Your task to perform on an android device: open a bookmark in the chrome app Image 0: 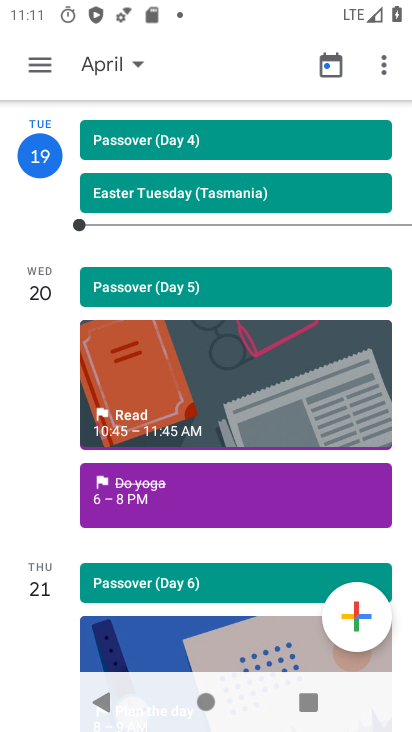
Step 0: press home button
Your task to perform on an android device: open a bookmark in the chrome app Image 1: 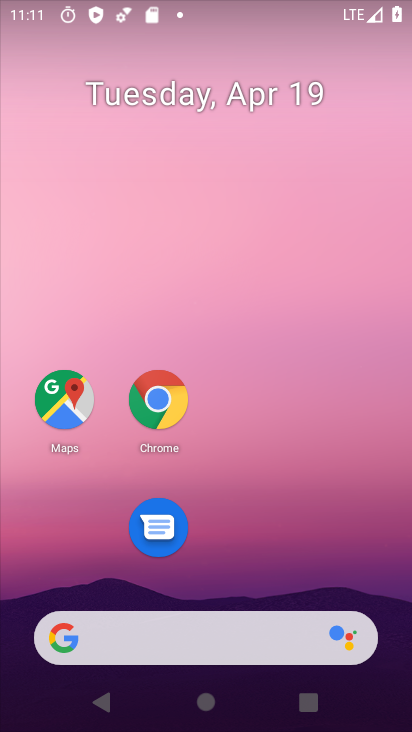
Step 1: drag from (266, 665) to (205, 63)
Your task to perform on an android device: open a bookmark in the chrome app Image 2: 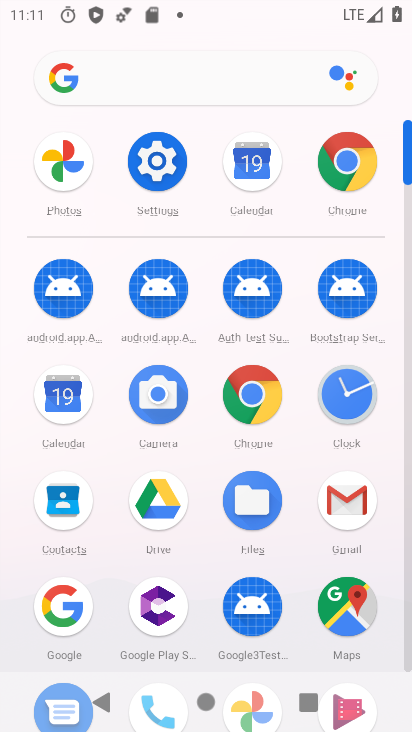
Step 2: click (243, 393)
Your task to perform on an android device: open a bookmark in the chrome app Image 3: 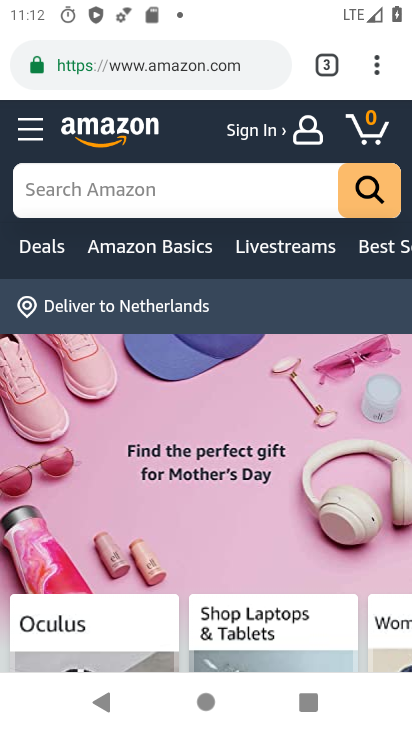
Step 3: click (381, 69)
Your task to perform on an android device: open a bookmark in the chrome app Image 4: 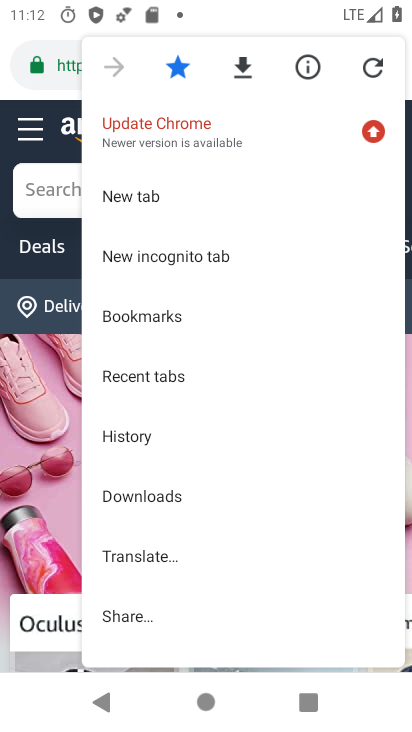
Step 4: click (170, 312)
Your task to perform on an android device: open a bookmark in the chrome app Image 5: 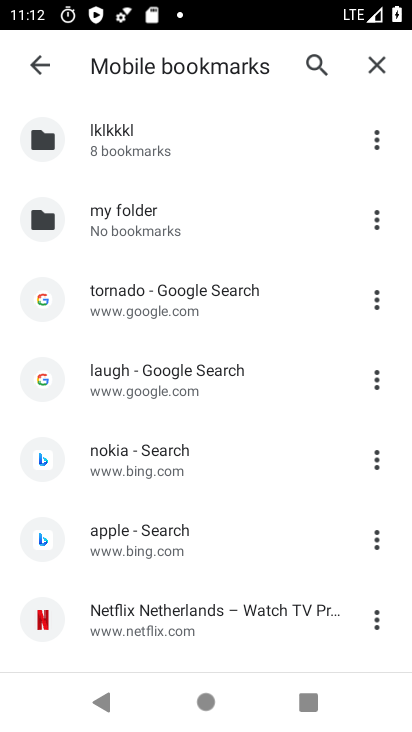
Step 5: click (138, 603)
Your task to perform on an android device: open a bookmark in the chrome app Image 6: 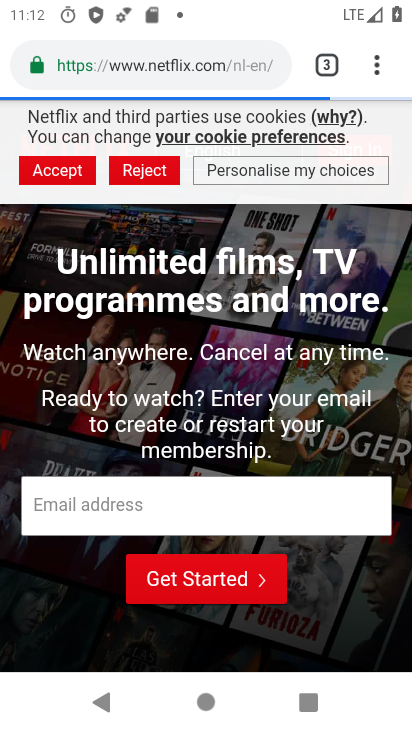
Step 6: task complete